Your task to perform on an android device: manage bookmarks in the chrome app Image 0: 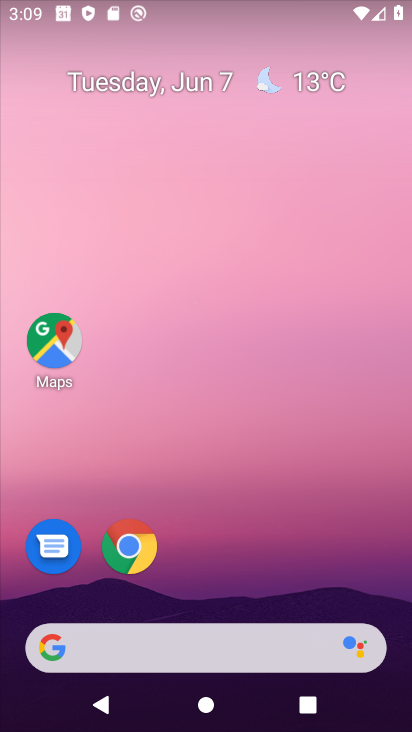
Step 0: drag from (184, 562) to (209, 176)
Your task to perform on an android device: manage bookmarks in the chrome app Image 1: 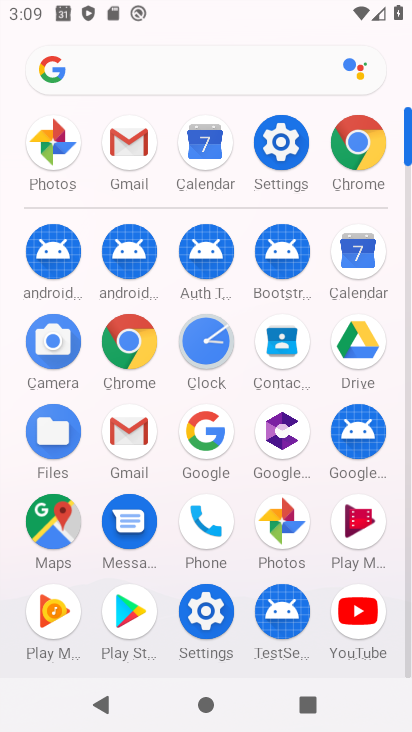
Step 1: click (360, 149)
Your task to perform on an android device: manage bookmarks in the chrome app Image 2: 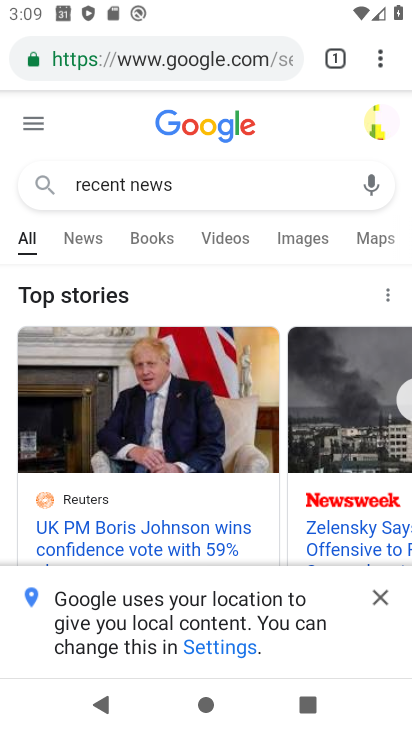
Step 2: click (388, 57)
Your task to perform on an android device: manage bookmarks in the chrome app Image 3: 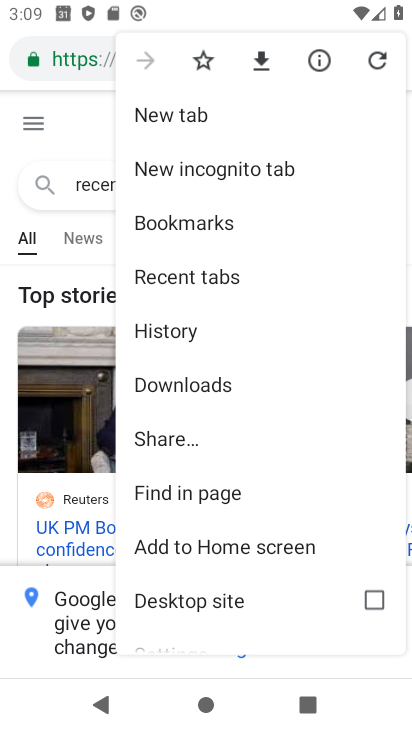
Step 3: click (194, 216)
Your task to perform on an android device: manage bookmarks in the chrome app Image 4: 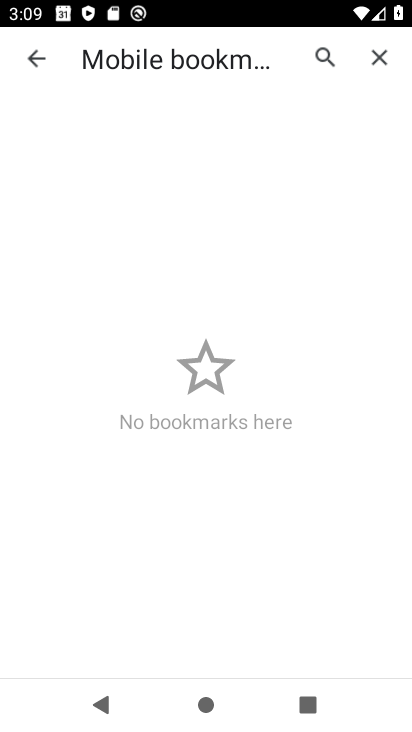
Step 4: task complete